Your task to perform on an android device: add a contact Image 0: 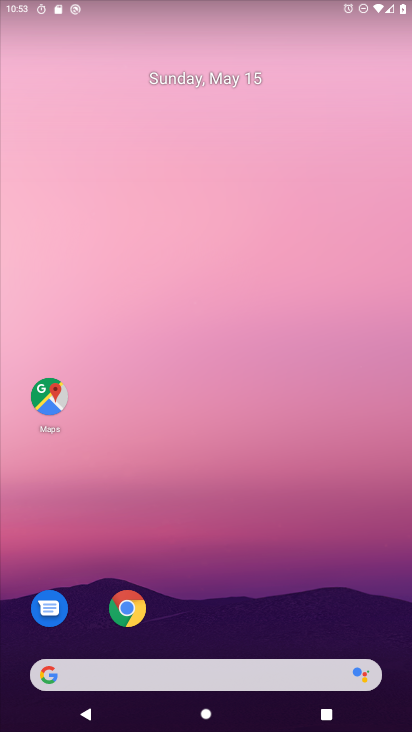
Step 0: drag from (221, 628) to (252, 226)
Your task to perform on an android device: add a contact Image 1: 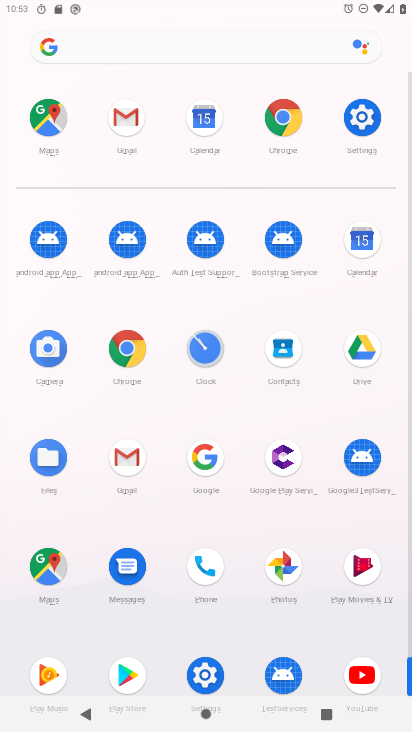
Step 1: drag from (228, 606) to (273, 222)
Your task to perform on an android device: add a contact Image 2: 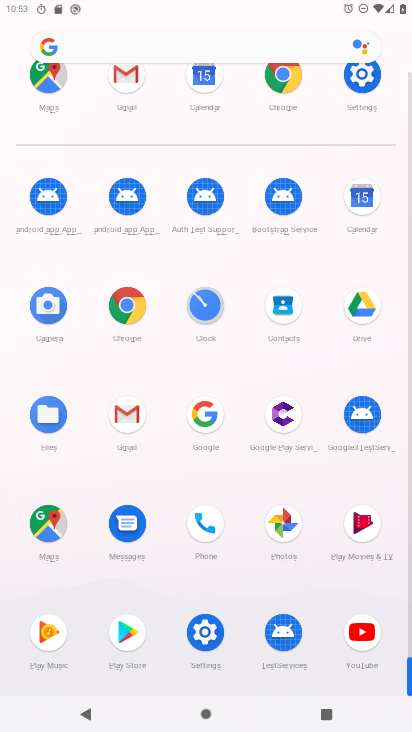
Step 2: click (289, 317)
Your task to perform on an android device: add a contact Image 3: 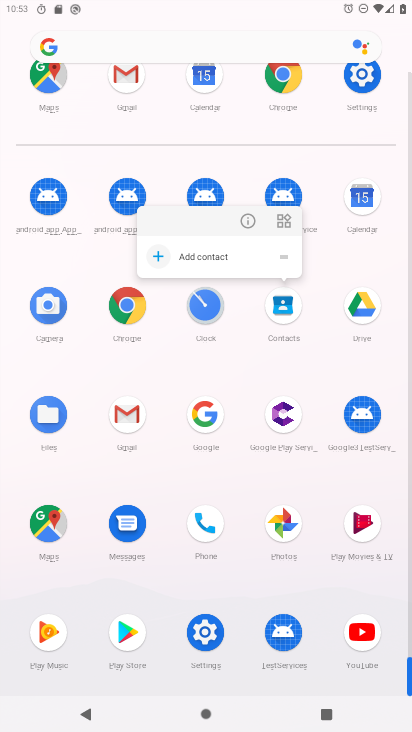
Step 3: click (285, 318)
Your task to perform on an android device: add a contact Image 4: 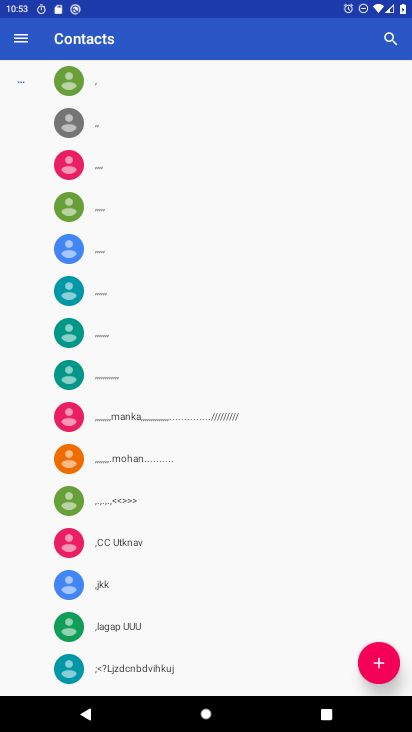
Step 4: click (375, 654)
Your task to perform on an android device: add a contact Image 5: 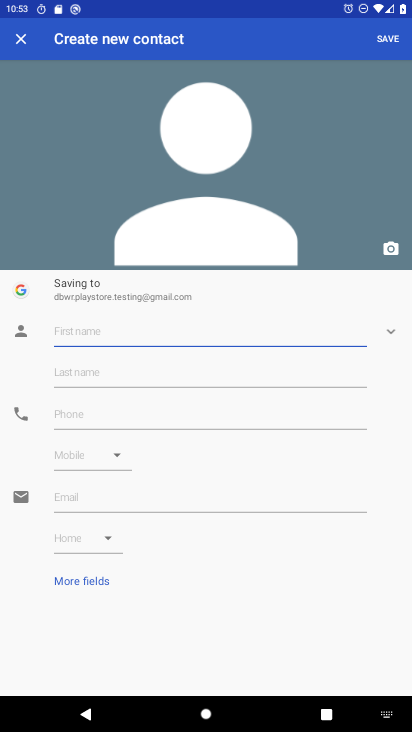
Step 5: click (198, 325)
Your task to perform on an android device: add a contact Image 6: 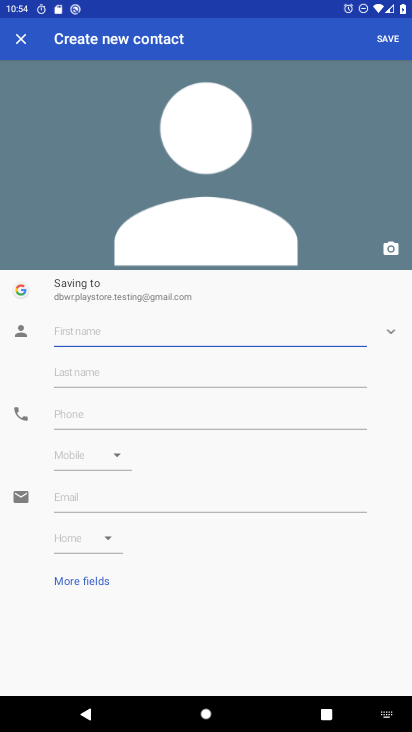
Step 6: type "himani"
Your task to perform on an android device: add a contact Image 7: 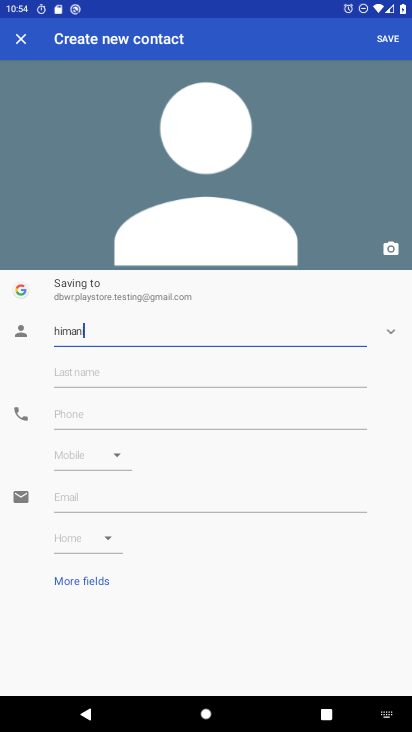
Step 7: click (114, 426)
Your task to perform on an android device: add a contact Image 8: 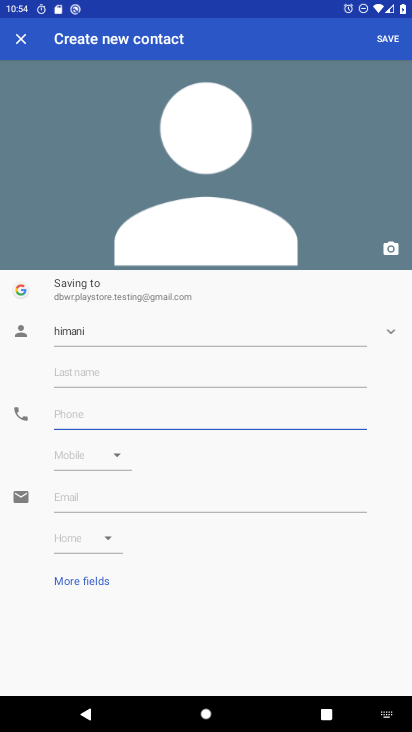
Step 8: click (118, 413)
Your task to perform on an android device: add a contact Image 9: 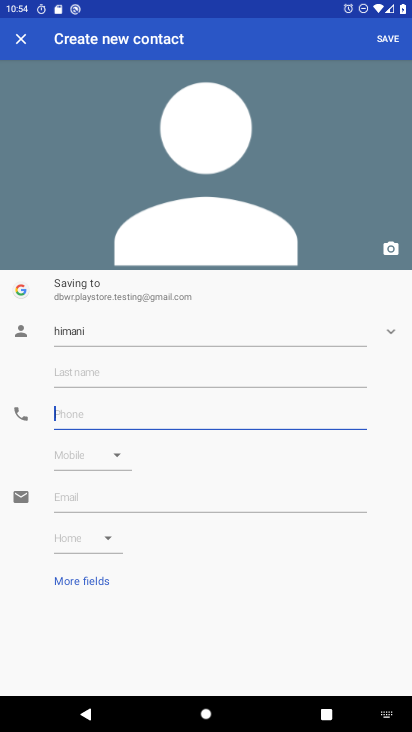
Step 9: type "743892389832"
Your task to perform on an android device: add a contact Image 10: 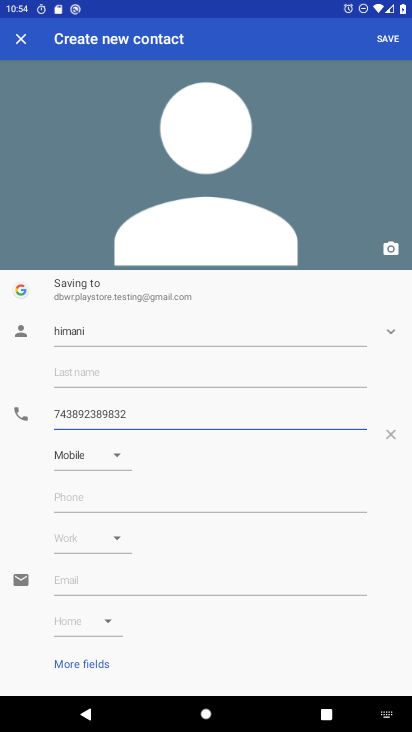
Step 10: click (385, 43)
Your task to perform on an android device: add a contact Image 11: 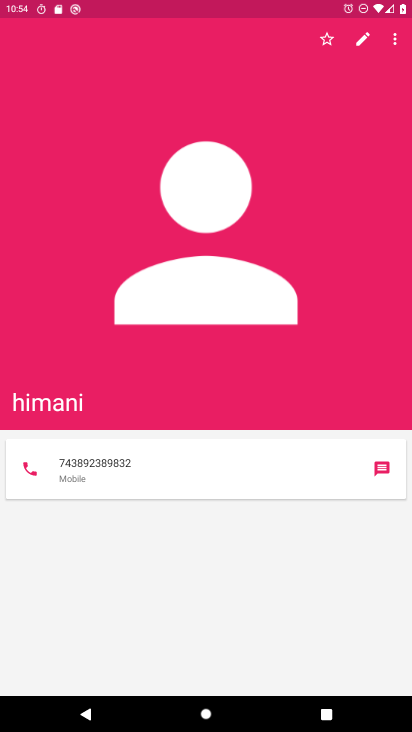
Step 11: task complete